Your task to perform on an android device: read, delete, or share a saved page in the chrome app Image 0: 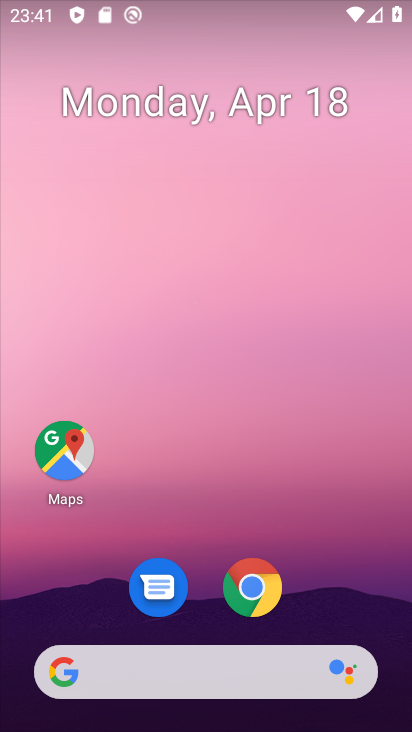
Step 0: drag from (344, 492) to (350, 90)
Your task to perform on an android device: read, delete, or share a saved page in the chrome app Image 1: 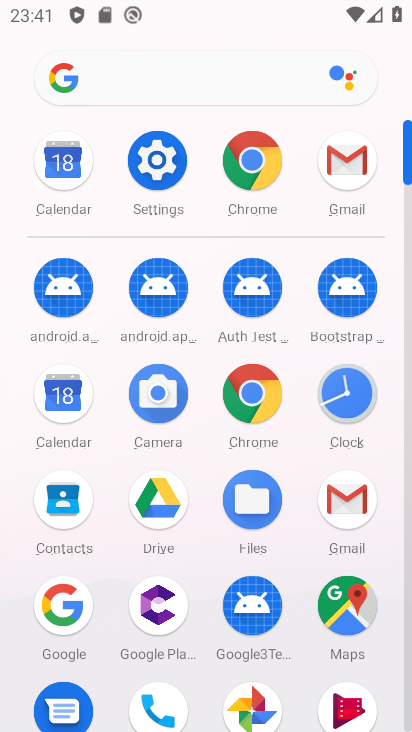
Step 1: click (257, 407)
Your task to perform on an android device: read, delete, or share a saved page in the chrome app Image 2: 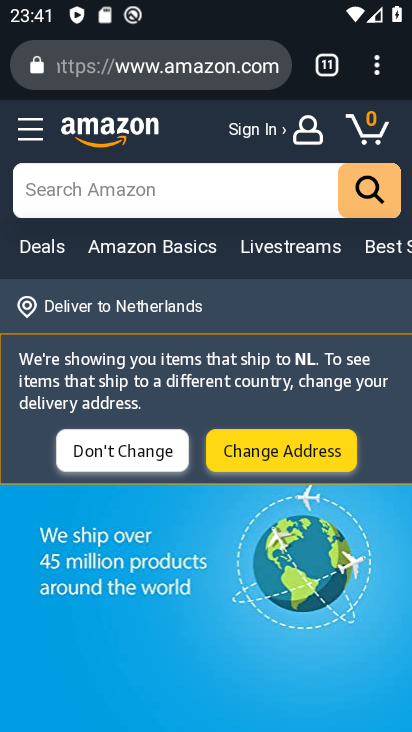
Step 2: click (382, 65)
Your task to perform on an android device: read, delete, or share a saved page in the chrome app Image 3: 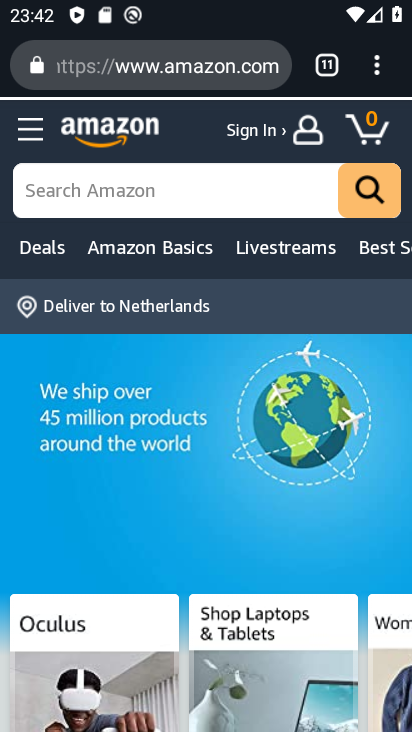
Step 3: click (382, 65)
Your task to perform on an android device: read, delete, or share a saved page in the chrome app Image 4: 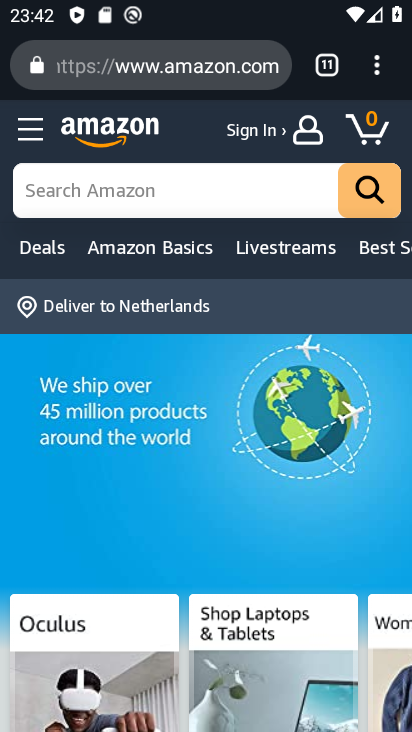
Step 4: click (380, 83)
Your task to perform on an android device: read, delete, or share a saved page in the chrome app Image 5: 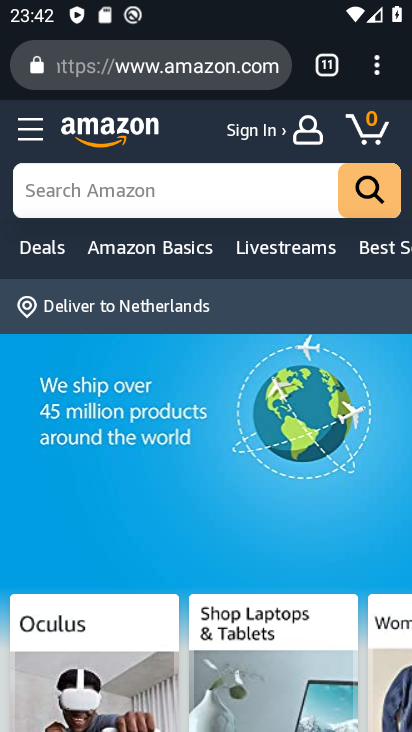
Step 5: click (375, 68)
Your task to perform on an android device: read, delete, or share a saved page in the chrome app Image 6: 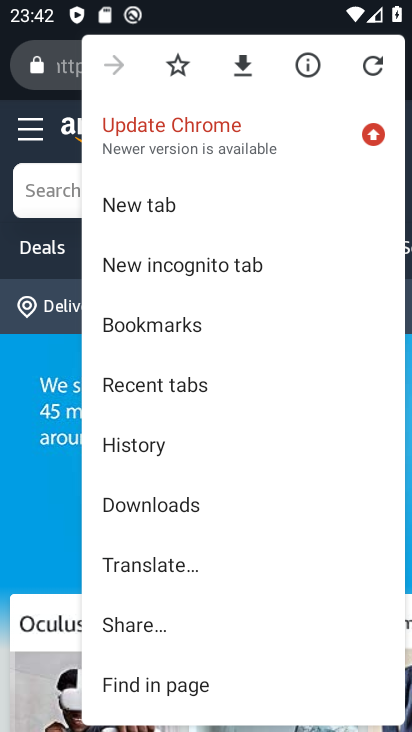
Step 6: drag from (238, 572) to (304, 320)
Your task to perform on an android device: read, delete, or share a saved page in the chrome app Image 7: 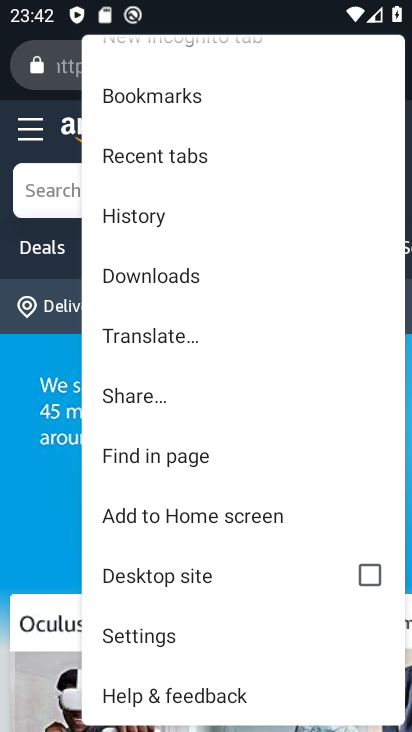
Step 7: drag from (215, 235) to (230, 583)
Your task to perform on an android device: read, delete, or share a saved page in the chrome app Image 8: 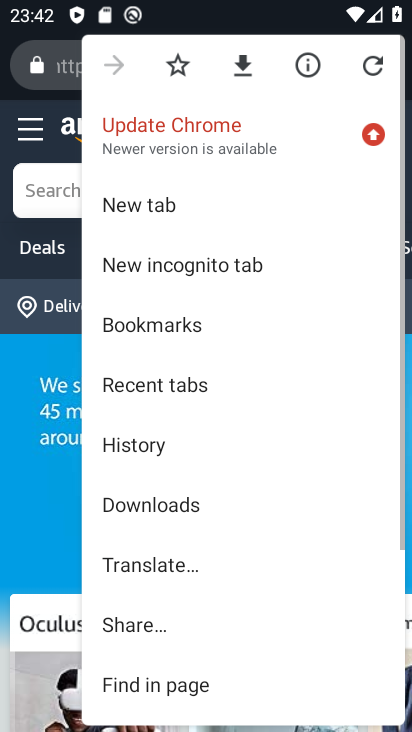
Step 8: click (199, 322)
Your task to perform on an android device: read, delete, or share a saved page in the chrome app Image 9: 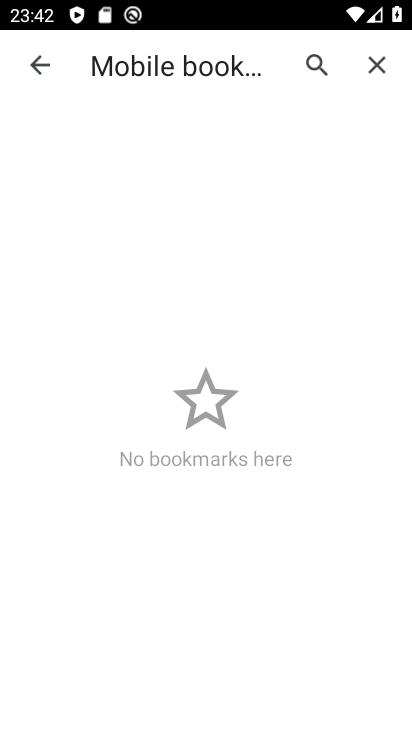
Step 9: task complete